Your task to perform on an android device: Go to Google Image 0: 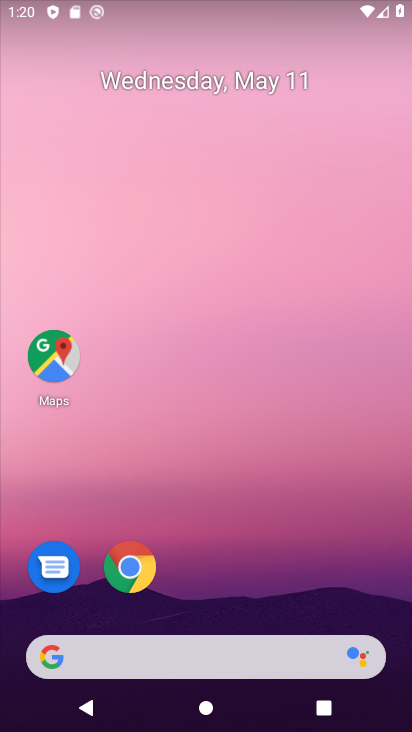
Step 0: drag from (220, 616) to (134, 0)
Your task to perform on an android device: Go to Google Image 1: 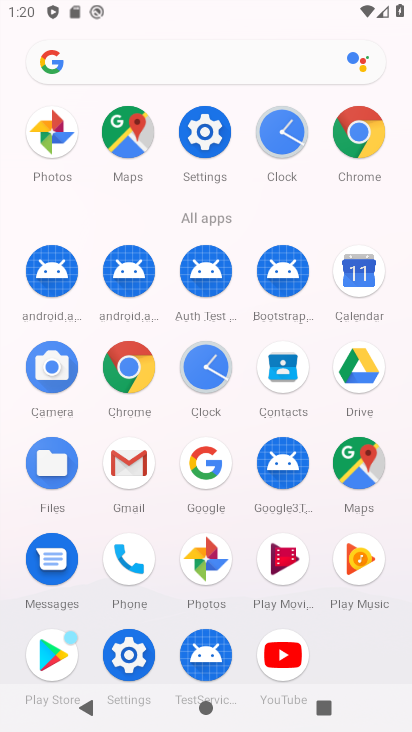
Step 1: click (198, 457)
Your task to perform on an android device: Go to Google Image 2: 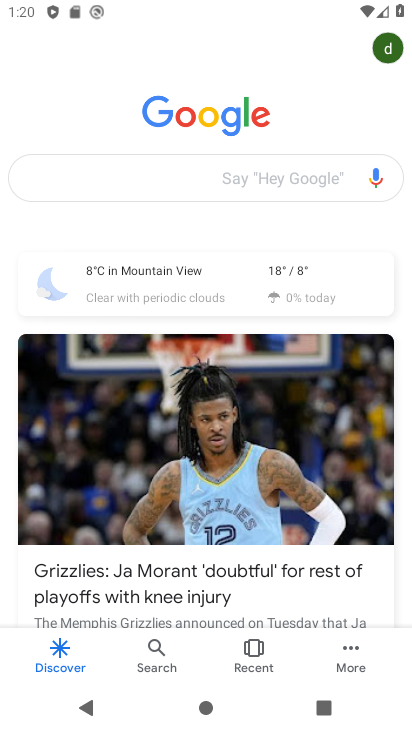
Step 2: task complete